Your task to perform on an android device: change the clock display to digital Image 0: 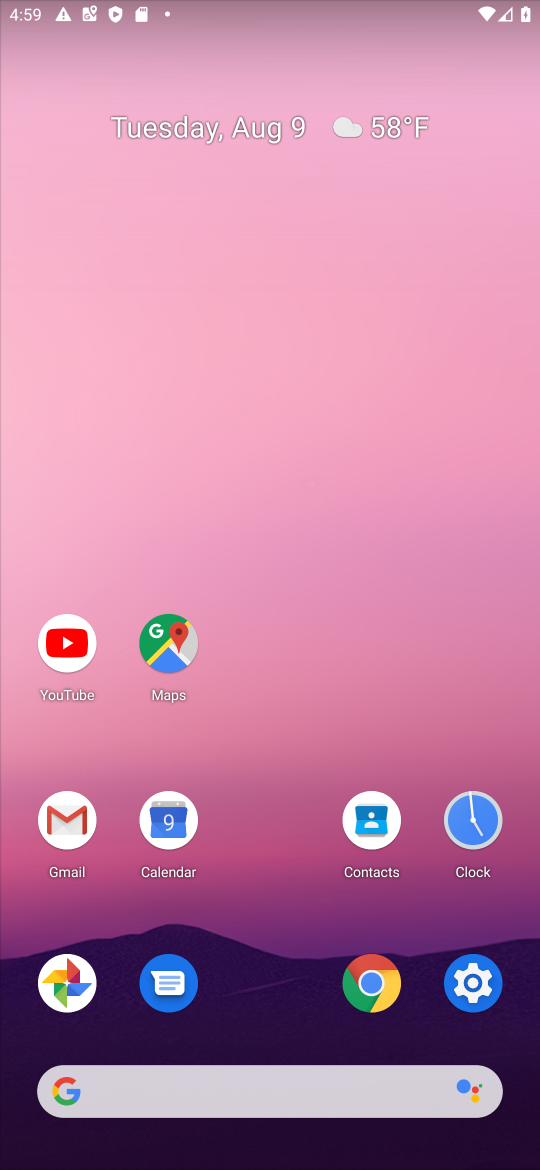
Step 0: click (487, 820)
Your task to perform on an android device: change the clock display to digital Image 1: 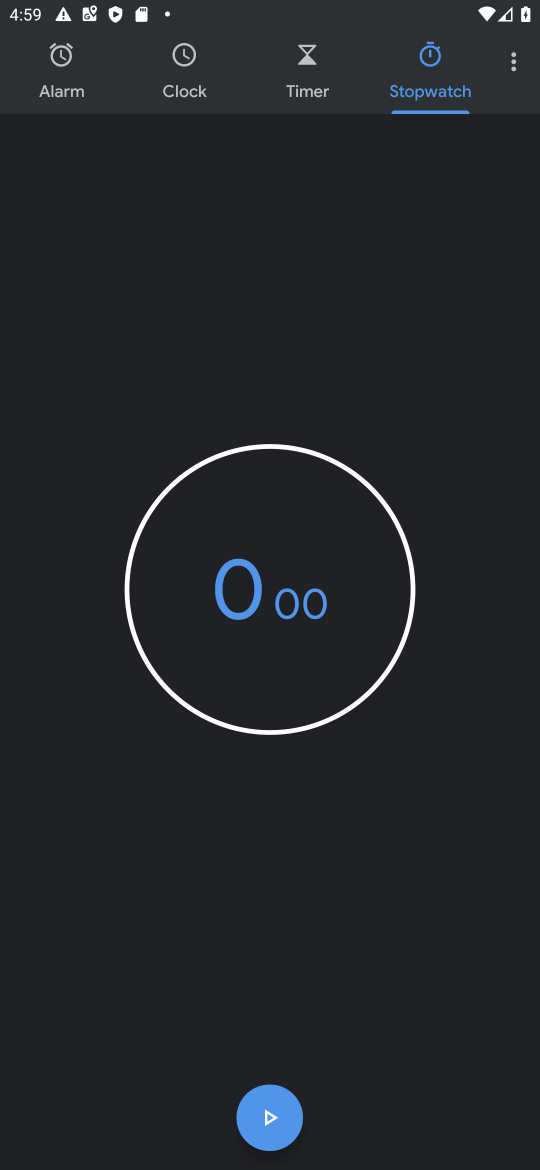
Step 1: click (518, 60)
Your task to perform on an android device: change the clock display to digital Image 2: 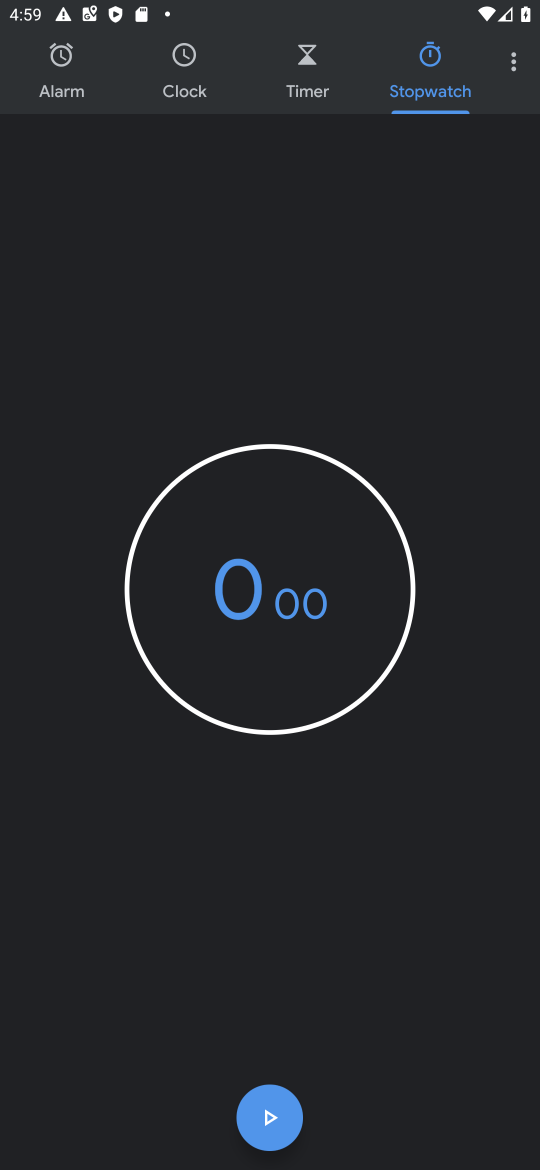
Step 2: click (504, 72)
Your task to perform on an android device: change the clock display to digital Image 3: 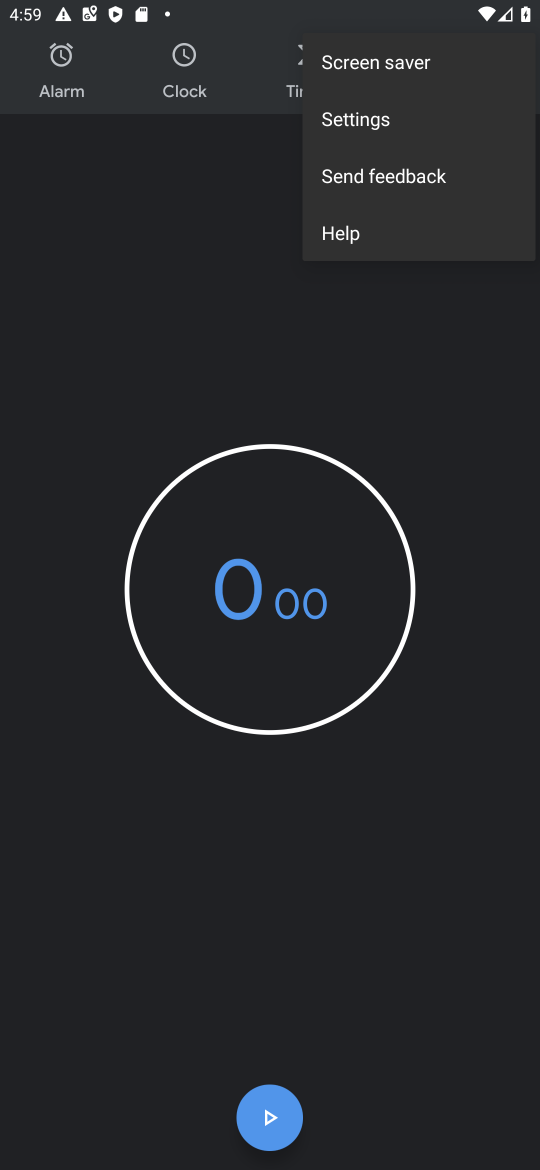
Step 3: click (367, 111)
Your task to perform on an android device: change the clock display to digital Image 4: 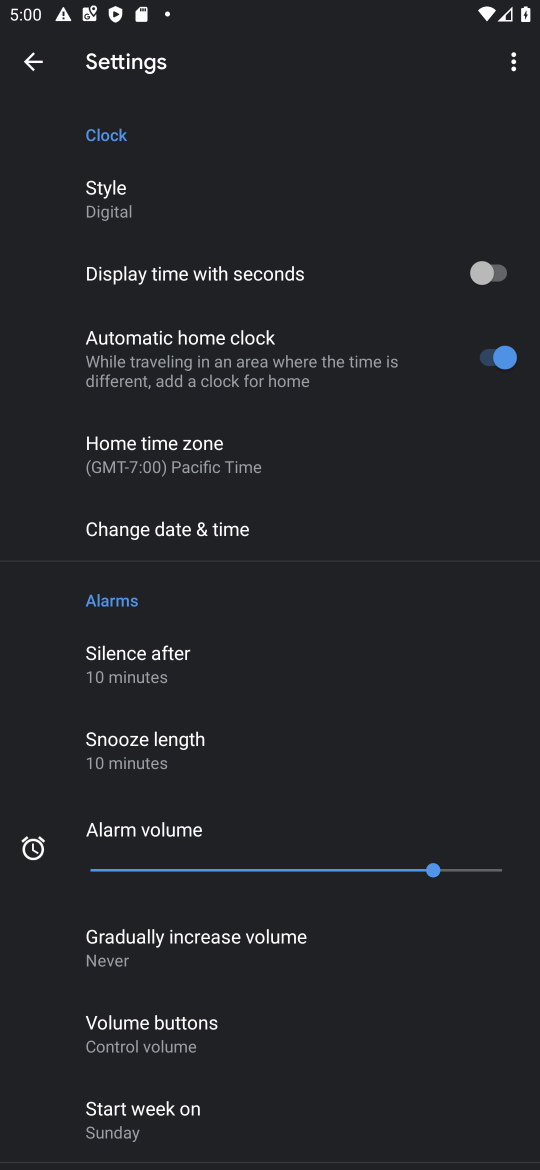
Step 4: click (112, 198)
Your task to perform on an android device: change the clock display to digital Image 5: 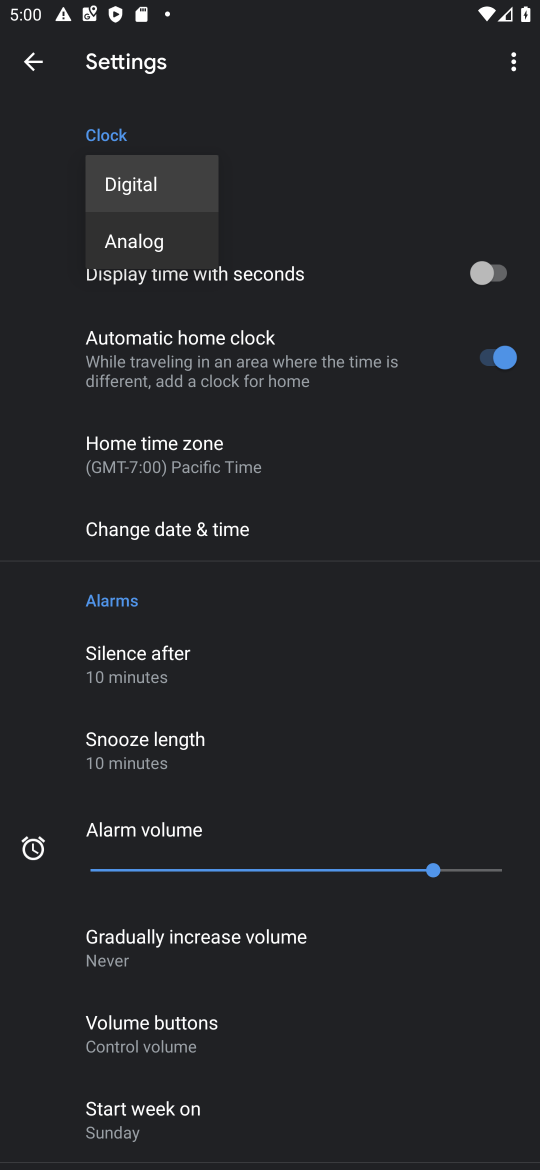
Step 5: click (137, 179)
Your task to perform on an android device: change the clock display to digital Image 6: 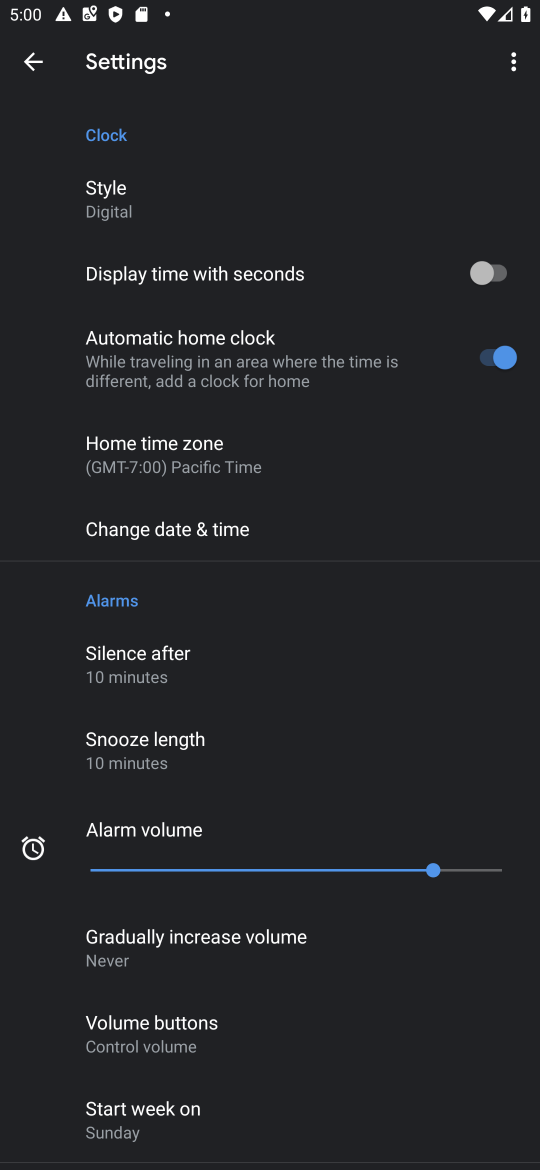
Step 6: task complete